Your task to perform on an android device: Open display settings Image 0: 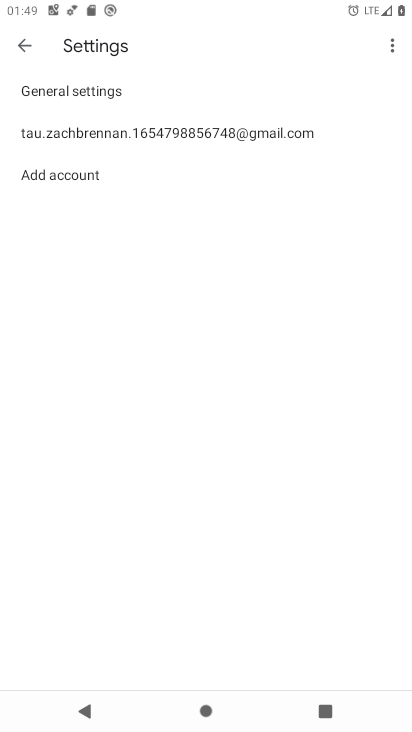
Step 0: press home button
Your task to perform on an android device: Open display settings Image 1: 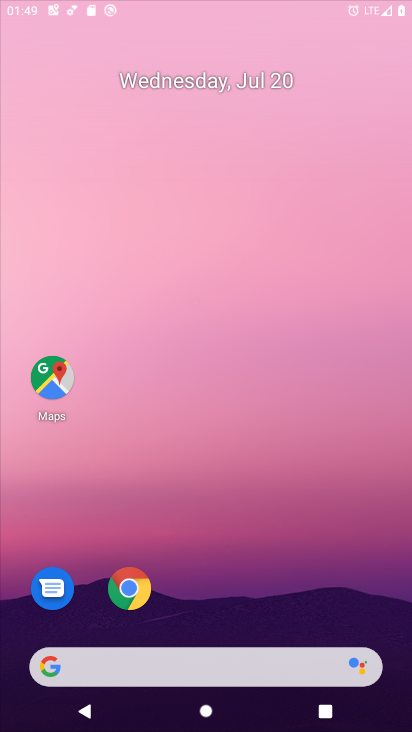
Step 1: drag from (249, 647) to (290, 339)
Your task to perform on an android device: Open display settings Image 2: 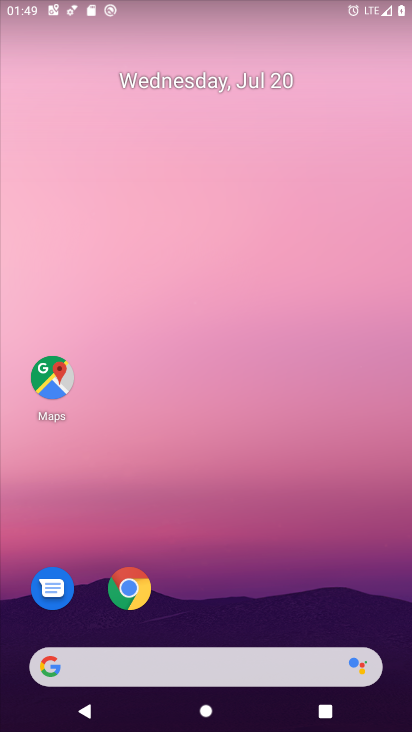
Step 2: drag from (248, 614) to (258, 202)
Your task to perform on an android device: Open display settings Image 3: 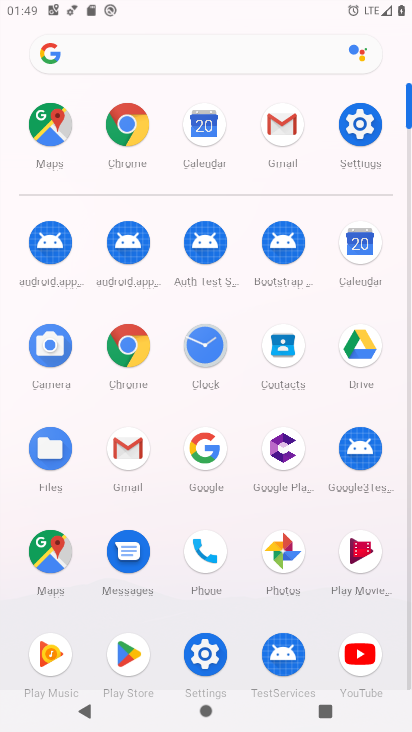
Step 3: click (356, 105)
Your task to perform on an android device: Open display settings Image 4: 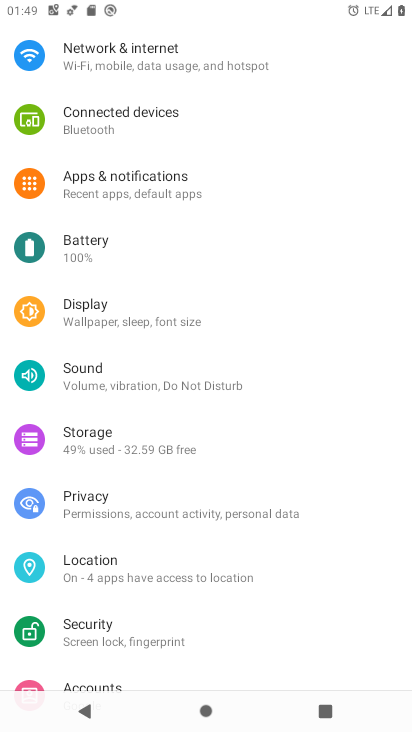
Step 4: click (101, 327)
Your task to perform on an android device: Open display settings Image 5: 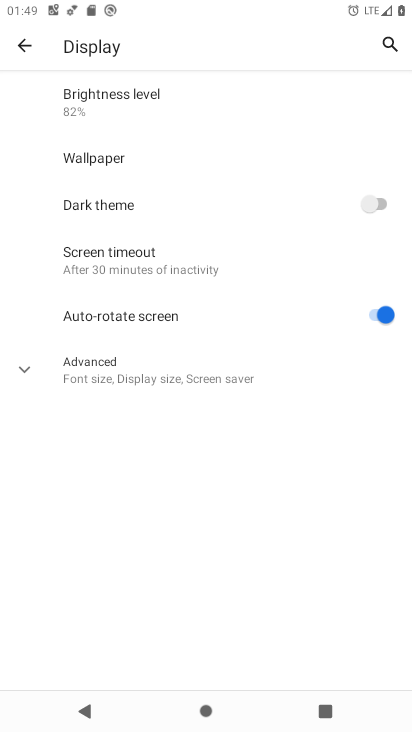
Step 5: task complete